Your task to perform on an android device: Set the phone to "Do not disturb". Image 0: 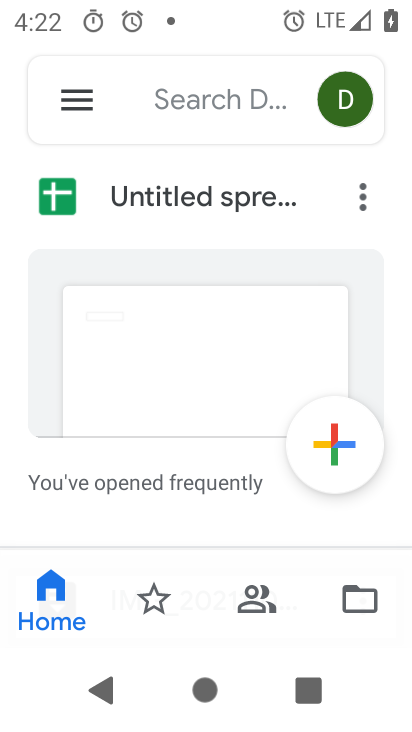
Step 0: press home button
Your task to perform on an android device: Set the phone to "Do not disturb". Image 1: 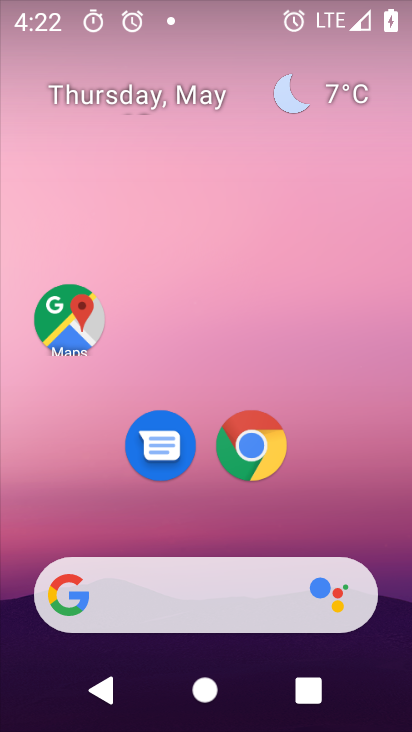
Step 1: drag from (392, 572) to (389, 9)
Your task to perform on an android device: Set the phone to "Do not disturb". Image 2: 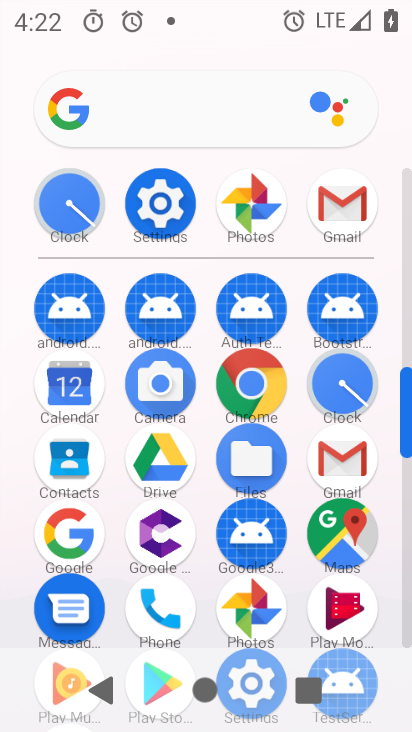
Step 2: click (153, 212)
Your task to perform on an android device: Set the phone to "Do not disturb". Image 3: 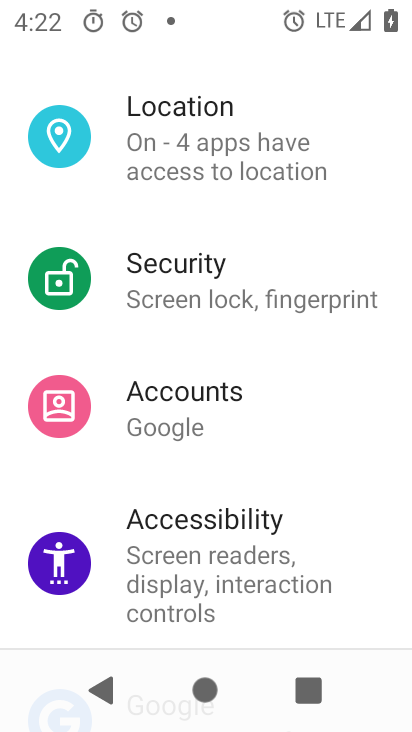
Step 3: drag from (331, 483) to (325, 271)
Your task to perform on an android device: Set the phone to "Do not disturb". Image 4: 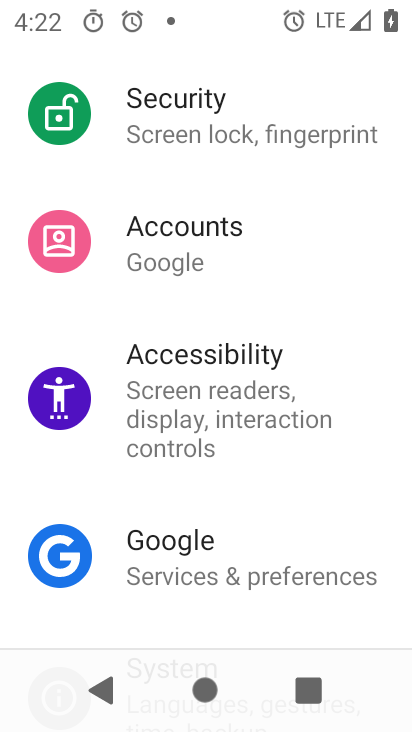
Step 4: drag from (273, 477) to (264, 232)
Your task to perform on an android device: Set the phone to "Do not disturb". Image 5: 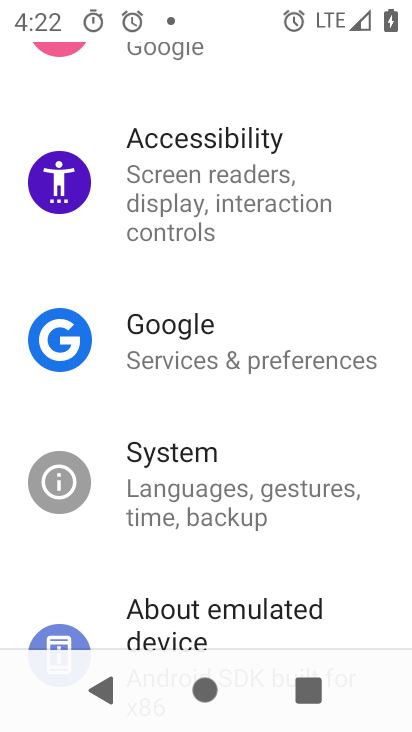
Step 5: drag from (358, 160) to (366, 577)
Your task to perform on an android device: Set the phone to "Do not disturb". Image 6: 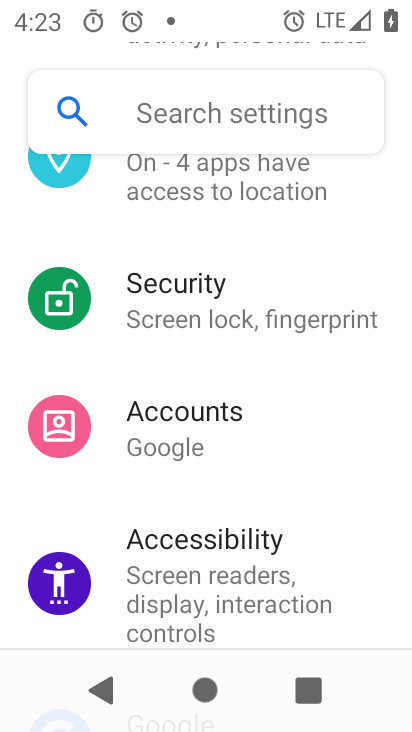
Step 6: drag from (369, 443) to (347, 585)
Your task to perform on an android device: Set the phone to "Do not disturb". Image 7: 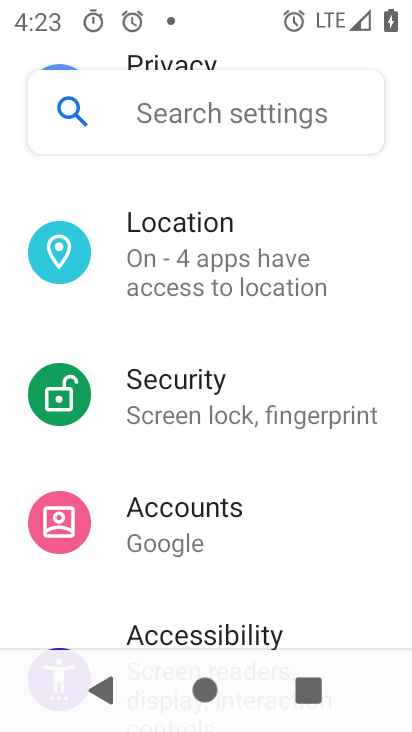
Step 7: drag from (364, 288) to (352, 582)
Your task to perform on an android device: Set the phone to "Do not disturb". Image 8: 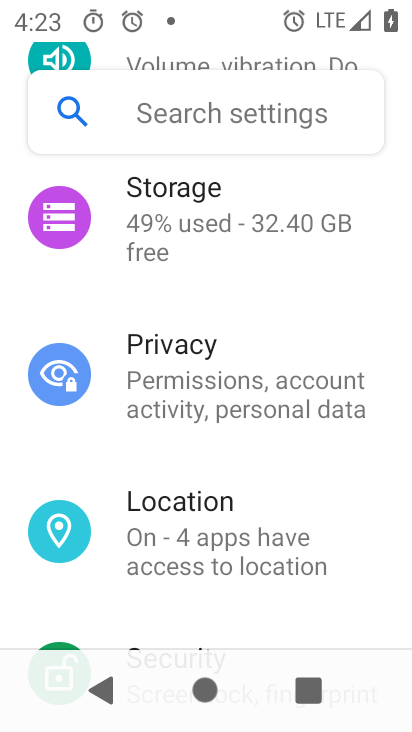
Step 8: drag from (371, 297) to (325, 636)
Your task to perform on an android device: Set the phone to "Do not disturb". Image 9: 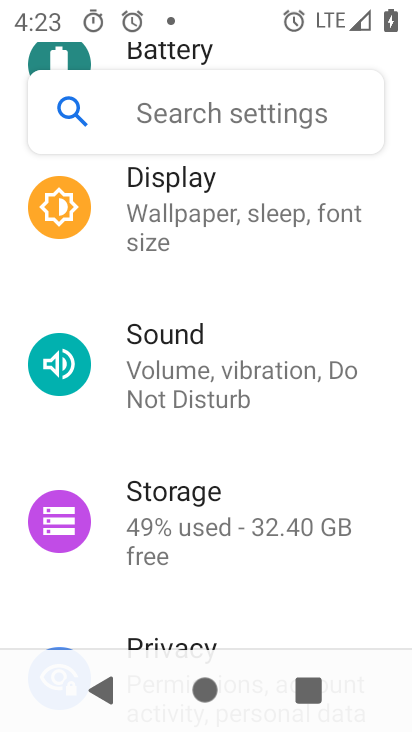
Step 9: click (176, 390)
Your task to perform on an android device: Set the phone to "Do not disturb". Image 10: 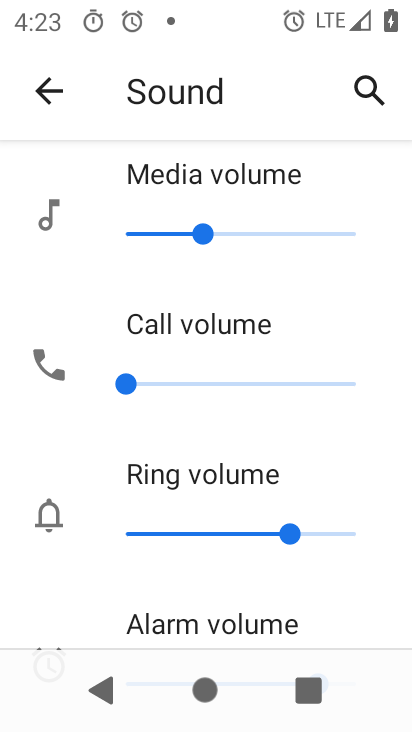
Step 10: drag from (333, 540) to (327, 165)
Your task to perform on an android device: Set the phone to "Do not disturb". Image 11: 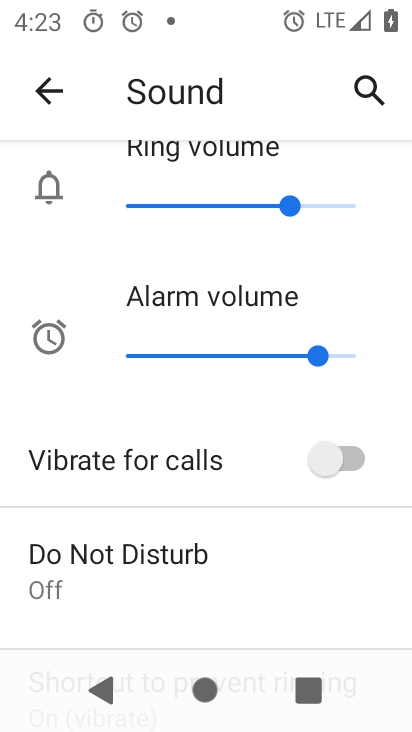
Step 11: click (81, 562)
Your task to perform on an android device: Set the phone to "Do not disturb". Image 12: 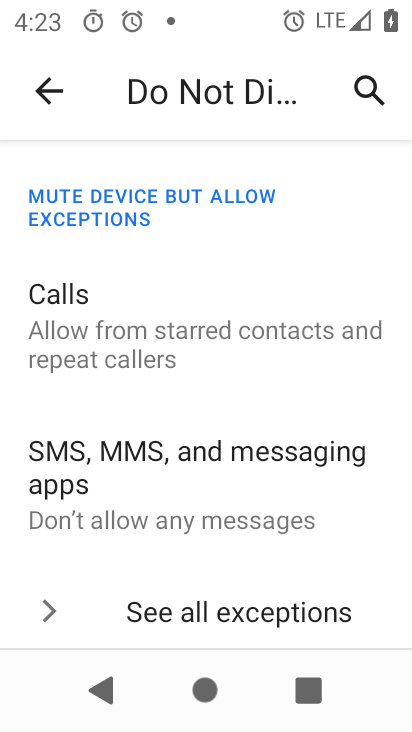
Step 12: drag from (98, 591) to (103, 182)
Your task to perform on an android device: Set the phone to "Do not disturb". Image 13: 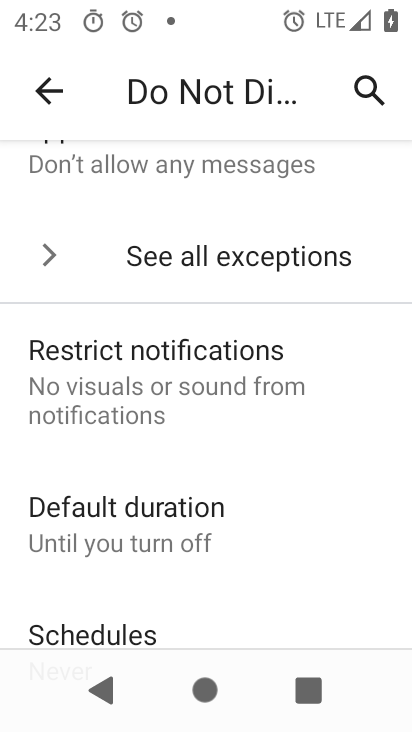
Step 13: drag from (175, 524) to (174, 188)
Your task to perform on an android device: Set the phone to "Do not disturb". Image 14: 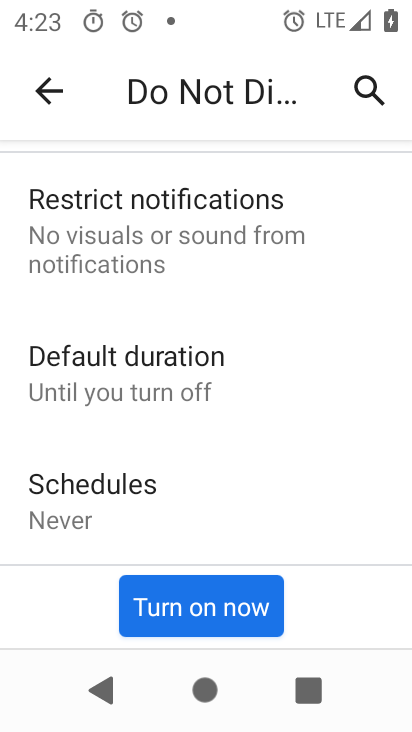
Step 14: click (204, 620)
Your task to perform on an android device: Set the phone to "Do not disturb". Image 15: 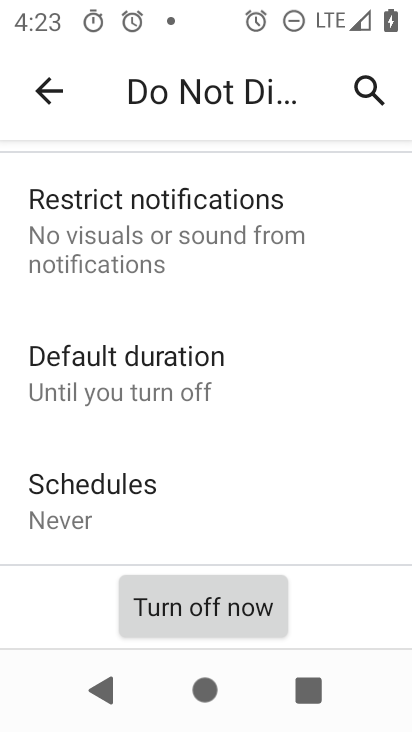
Step 15: task complete